Your task to perform on an android device: empty trash in the gmail app Image 0: 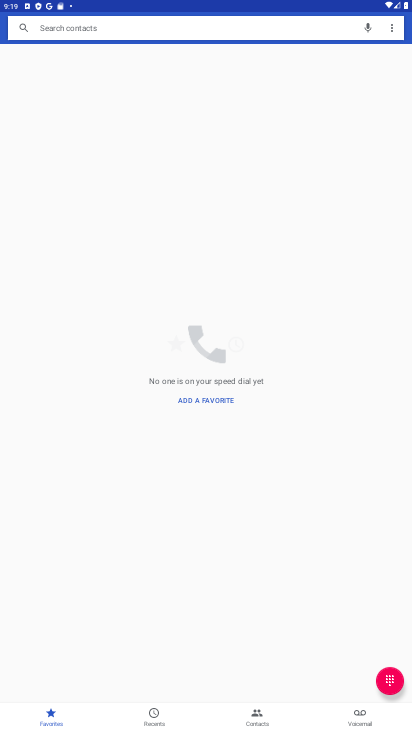
Step 0: press home button
Your task to perform on an android device: empty trash in the gmail app Image 1: 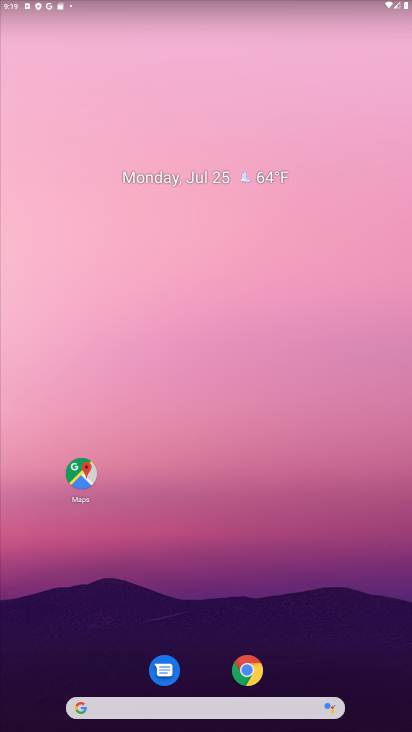
Step 1: drag from (360, 657) to (150, 20)
Your task to perform on an android device: empty trash in the gmail app Image 2: 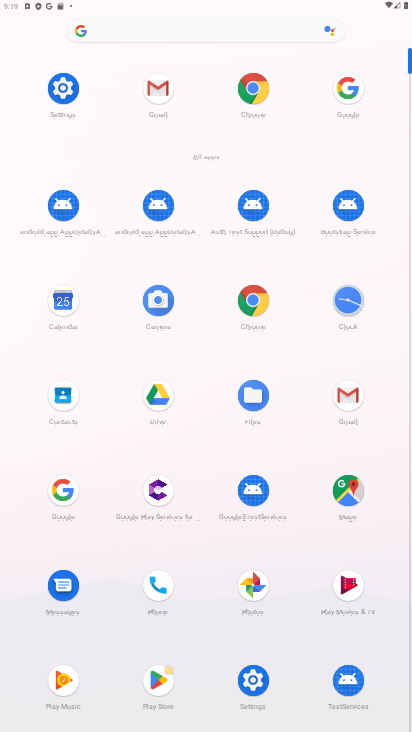
Step 2: click (350, 399)
Your task to perform on an android device: empty trash in the gmail app Image 3: 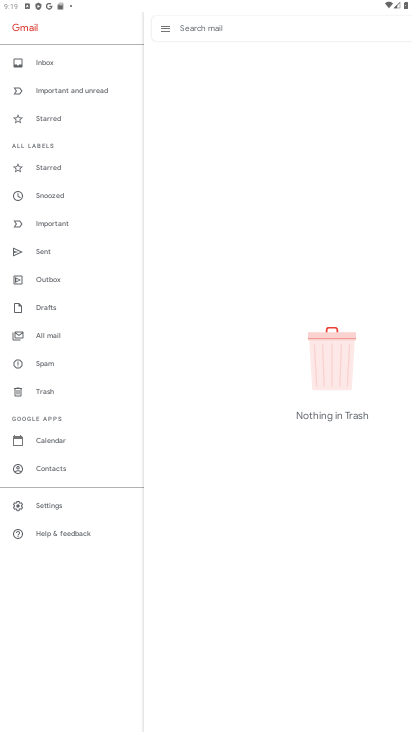
Step 3: click (60, 394)
Your task to perform on an android device: empty trash in the gmail app Image 4: 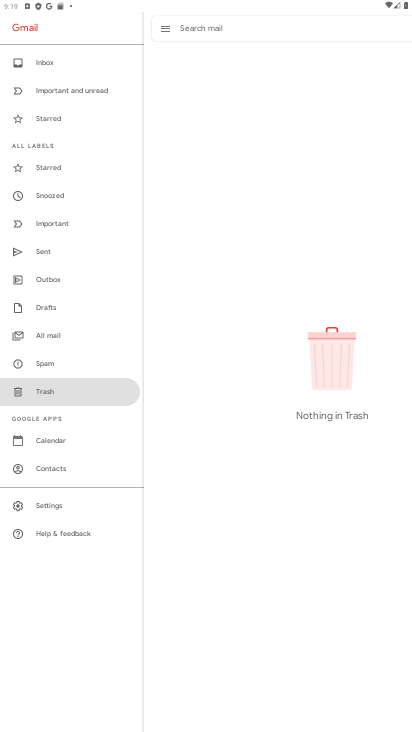
Step 4: click (59, 390)
Your task to perform on an android device: empty trash in the gmail app Image 5: 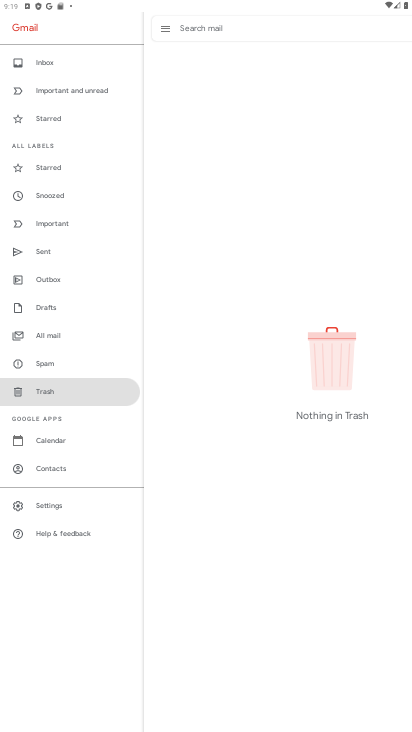
Step 5: click (59, 389)
Your task to perform on an android device: empty trash in the gmail app Image 6: 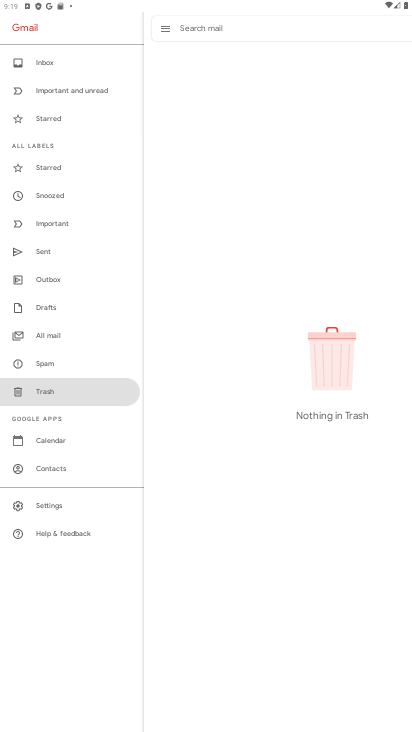
Step 6: task complete